Your task to perform on an android device: toggle translation in the chrome app Image 0: 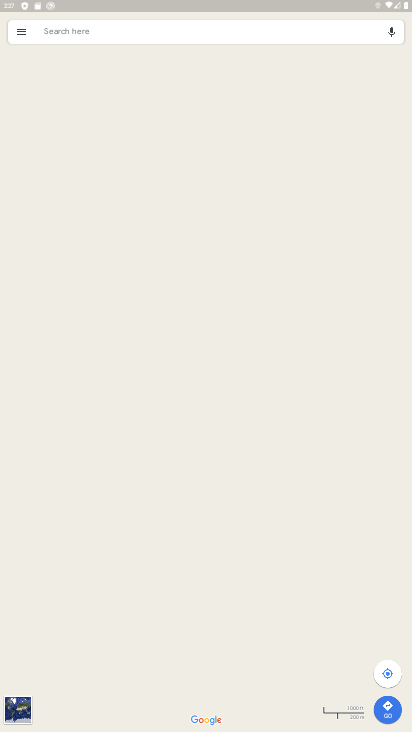
Step 0: press home button
Your task to perform on an android device: toggle translation in the chrome app Image 1: 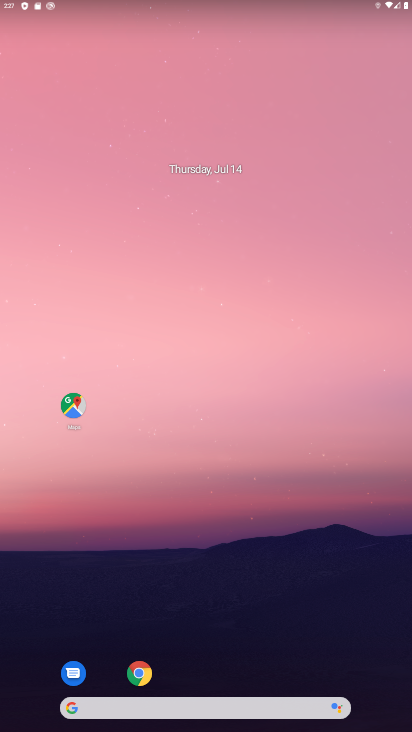
Step 1: click (146, 673)
Your task to perform on an android device: toggle translation in the chrome app Image 2: 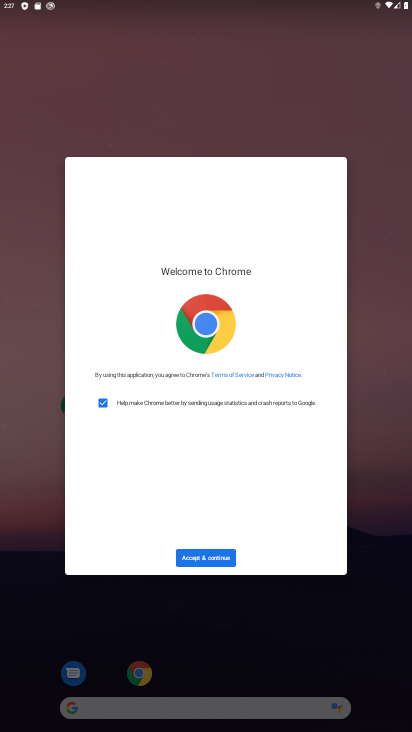
Step 2: click (214, 558)
Your task to perform on an android device: toggle translation in the chrome app Image 3: 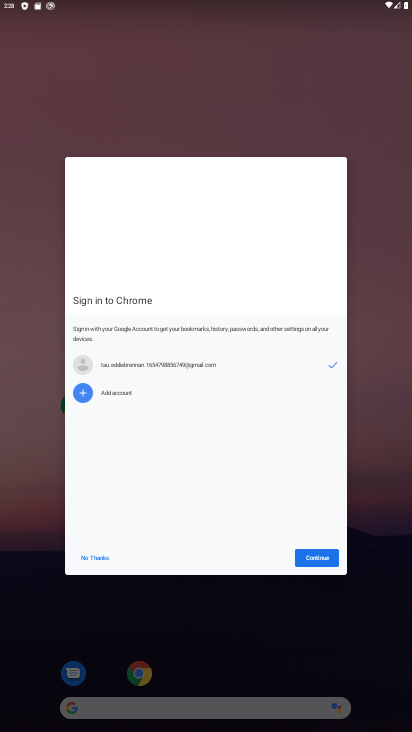
Step 3: click (330, 562)
Your task to perform on an android device: toggle translation in the chrome app Image 4: 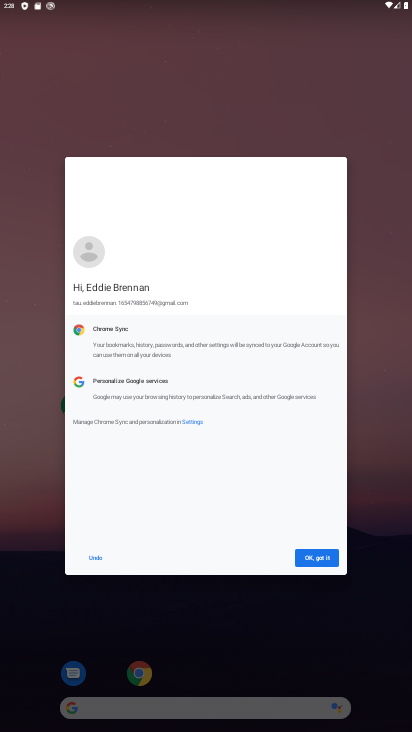
Step 4: click (329, 559)
Your task to perform on an android device: toggle translation in the chrome app Image 5: 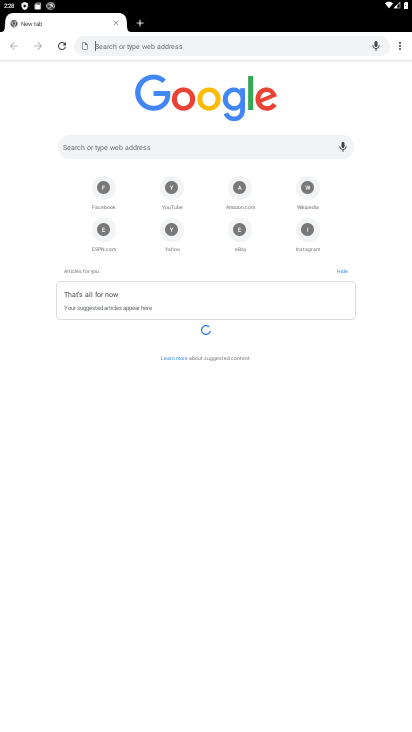
Step 5: drag from (396, 48) to (323, 204)
Your task to perform on an android device: toggle translation in the chrome app Image 6: 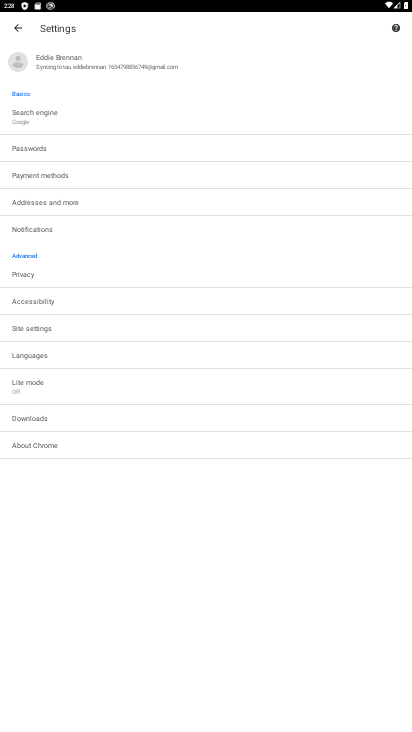
Step 6: click (97, 357)
Your task to perform on an android device: toggle translation in the chrome app Image 7: 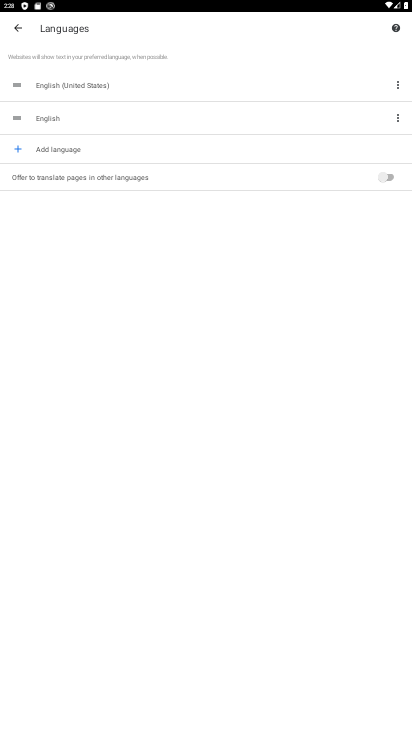
Step 7: click (391, 171)
Your task to perform on an android device: toggle translation in the chrome app Image 8: 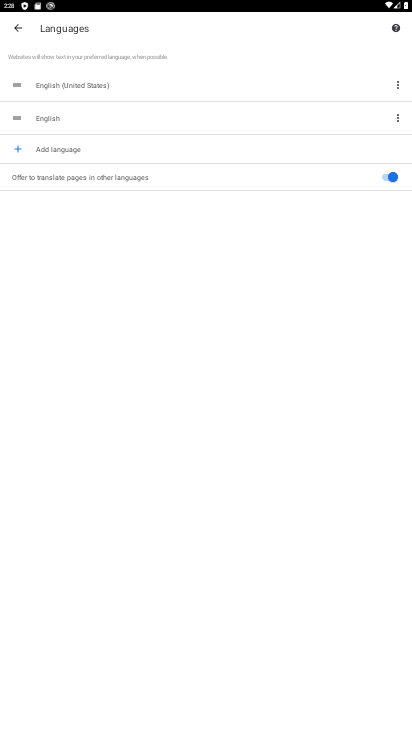
Step 8: task complete